Your task to perform on an android device: Open the calendar and show me this week's events? Image 0: 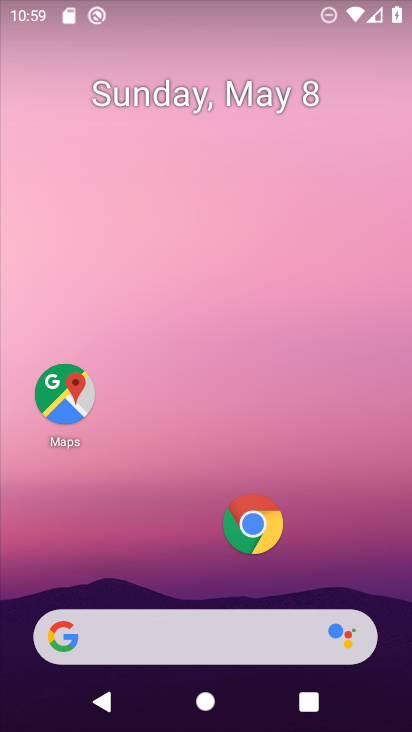
Step 0: drag from (183, 526) to (149, 31)
Your task to perform on an android device: Open the calendar and show me this week's events? Image 1: 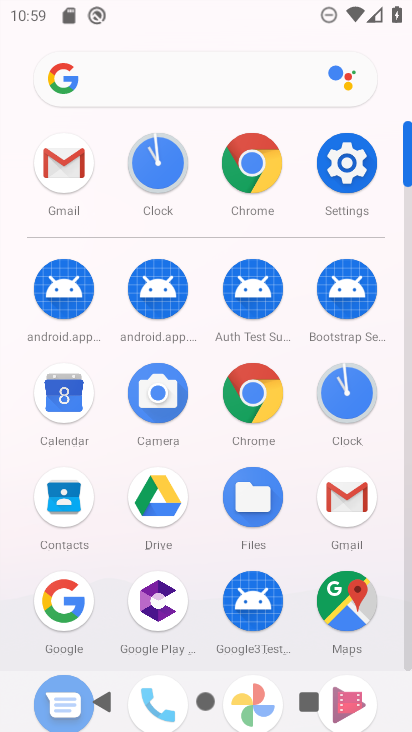
Step 1: click (65, 387)
Your task to perform on an android device: Open the calendar and show me this week's events? Image 2: 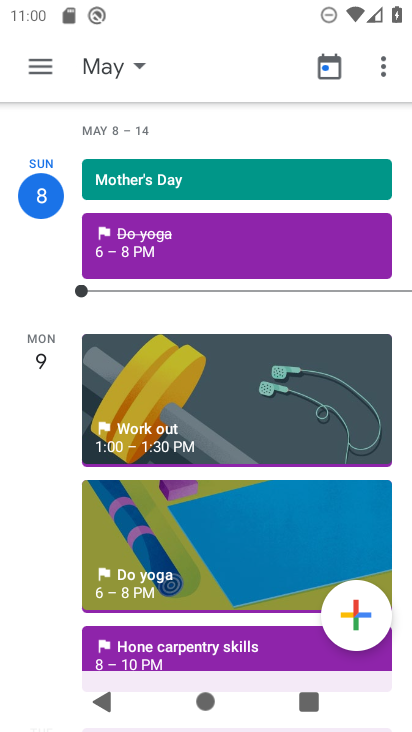
Step 2: click (33, 70)
Your task to perform on an android device: Open the calendar and show me this week's events? Image 3: 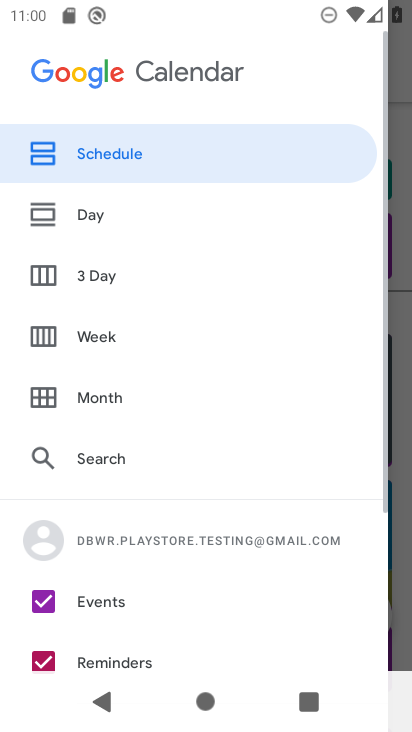
Step 3: click (45, 330)
Your task to perform on an android device: Open the calendar and show me this week's events? Image 4: 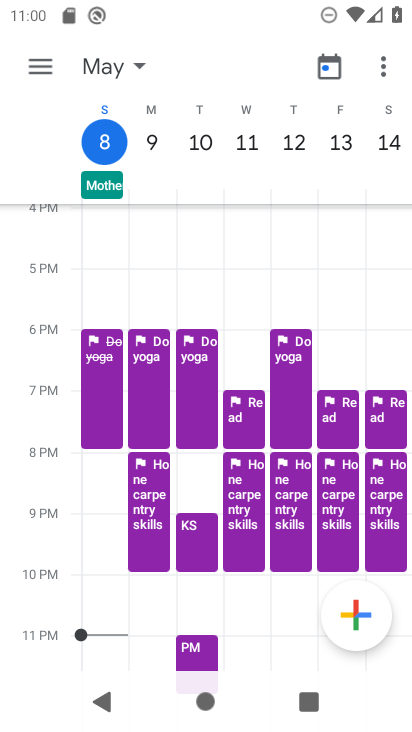
Step 4: task complete